Your task to perform on an android device: Go to Wikipedia Image 0: 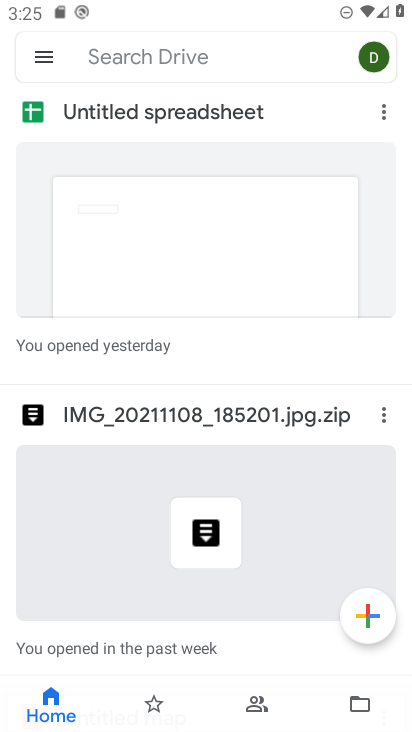
Step 0: press home button
Your task to perform on an android device: Go to Wikipedia Image 1: 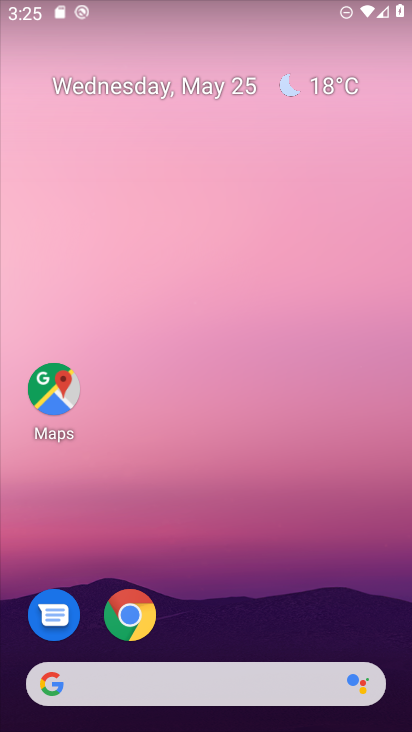
Step 1: click (139, 617)
Your task to perform on an android device: Go to Wikipedia Image 2: 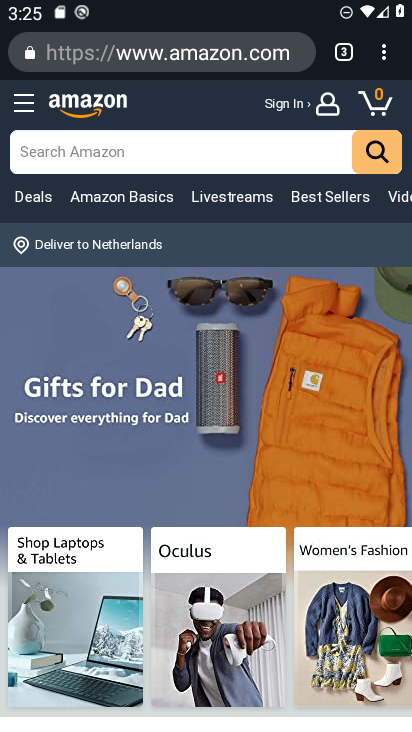
Step 2: click (384, 52)
Your task to perform on an android device: Go to Wikipedia Image 3: 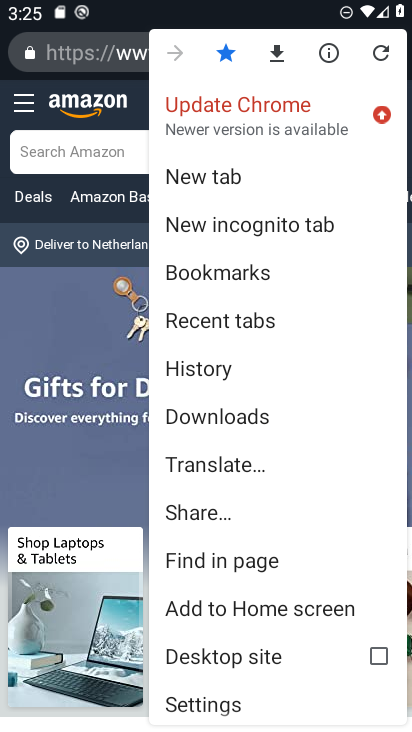
Step 3: click (274, 182)
Your task to perform on an android device: Go to Wikipedia Image 4: 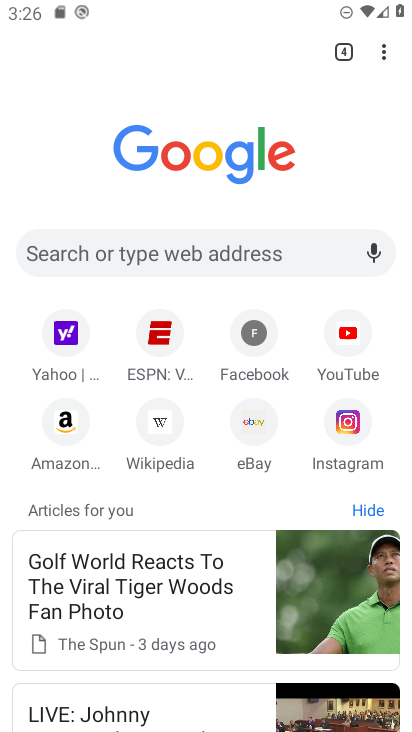
Step 4: click (164, 427)
Your task to perform on an android device: Go to Wikipedia Image 5: 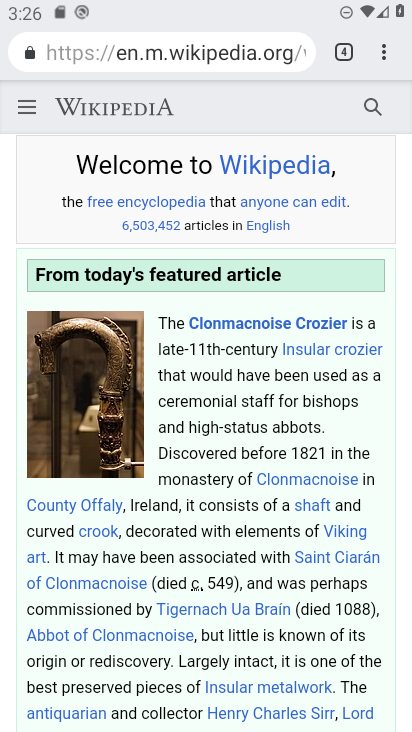
Step 5: task complete